Your task to perform on an android device: toggle translation in the chrome app Image 0: 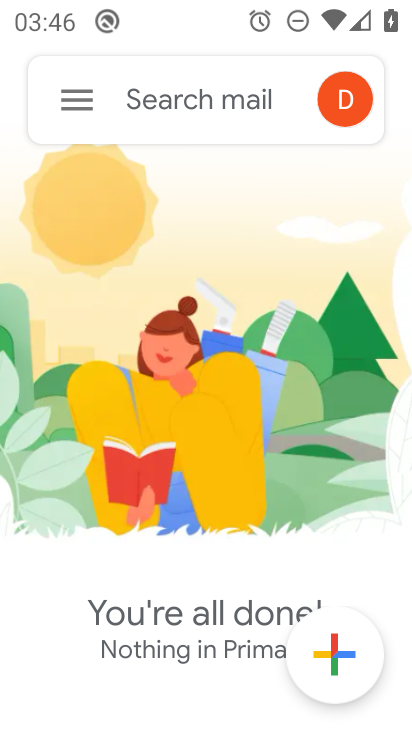
Step 0: press home button
Your task to perform on an android device: toggle translation in the chrome app Image 1: 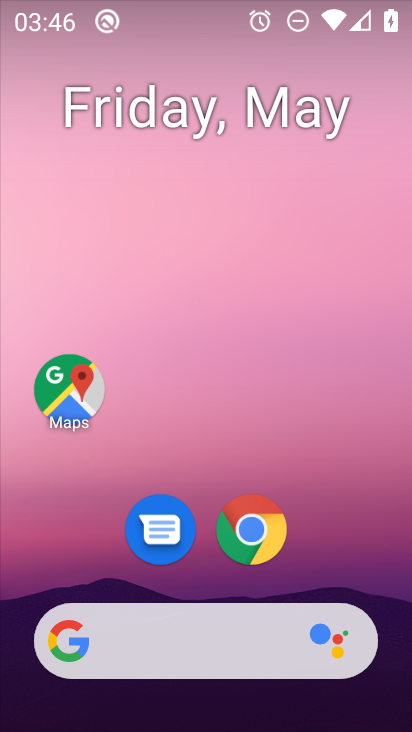
Step 1: drag from (396, 661) to (384, 268)
Your task to perform on an android device: toggle translation in the chrome app Image 2: 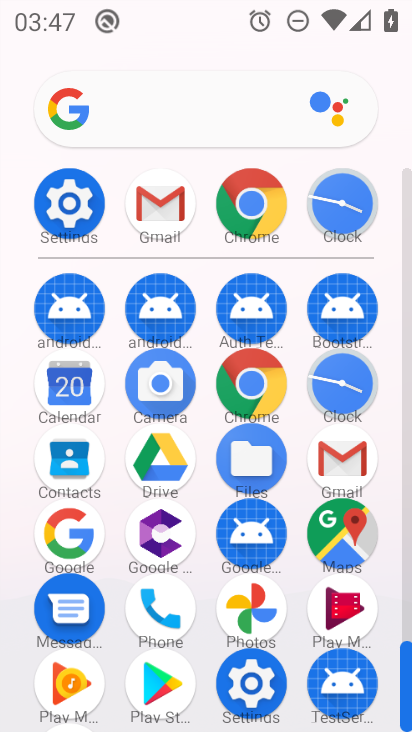
Step 2: click (254, 198)
Your task to perform on an android device: toggle translation in the chrome app Image 3: 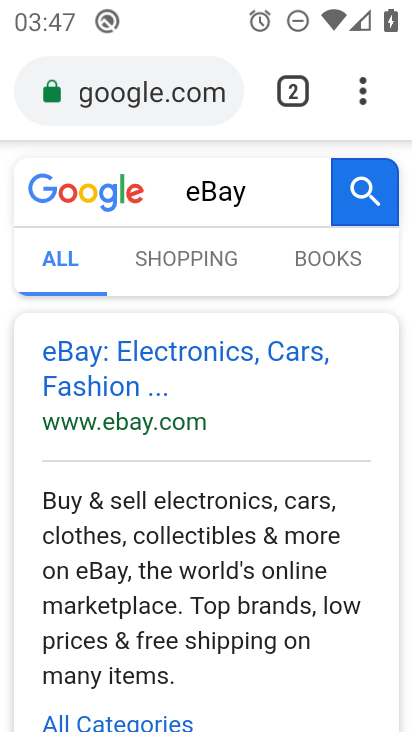
Step 3: click (364, 87)
Your task to perform on an android device: toggle translation in the chrome app Image 4: 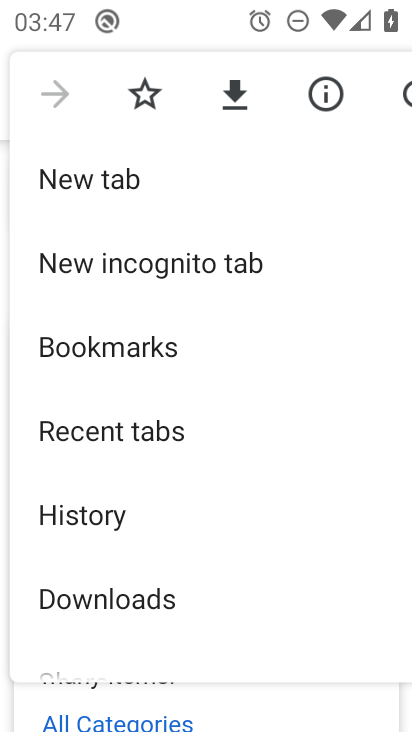
Step 4: drag from (278, 625) to (306, 367)
Your task to perform on an android device: toggle translation in the chrome app Image 5: 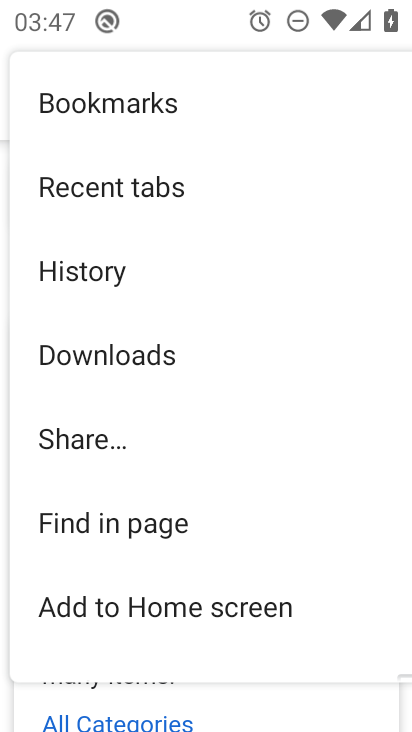
Step 5: drag from (306, 527) to (304, 367)
Your task to perform on an android device: toggle translation in the chrome app Image 6: 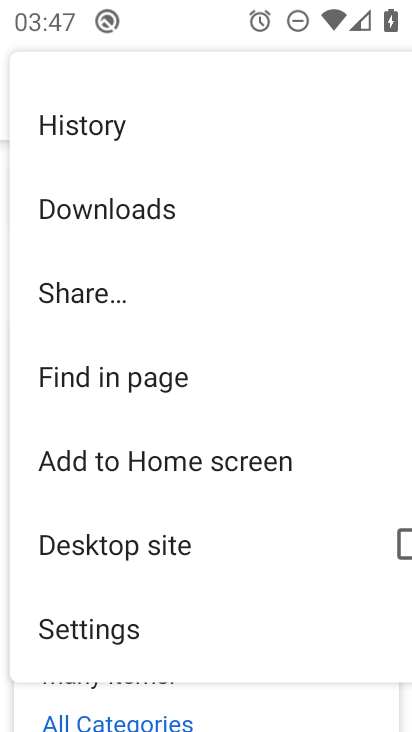
Step 6: click (62, 631)
Your task to perform on an android device: toggle translation in the chrome app Image 7: 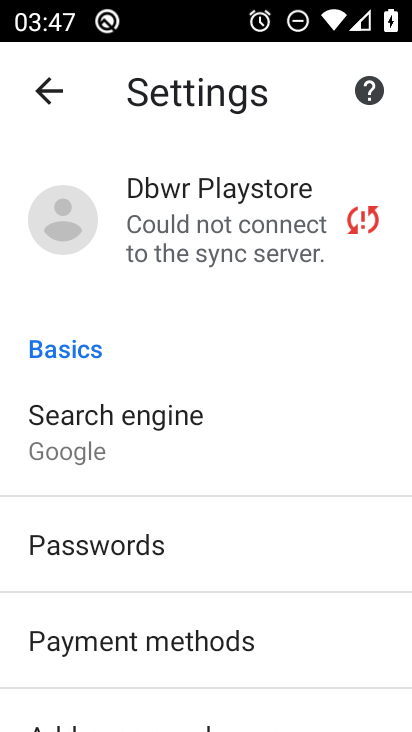
Step 7: drag from (305, 698) to (276, 356)
Your task to perform on an android device: toggle translation in the chrome app Image 8: 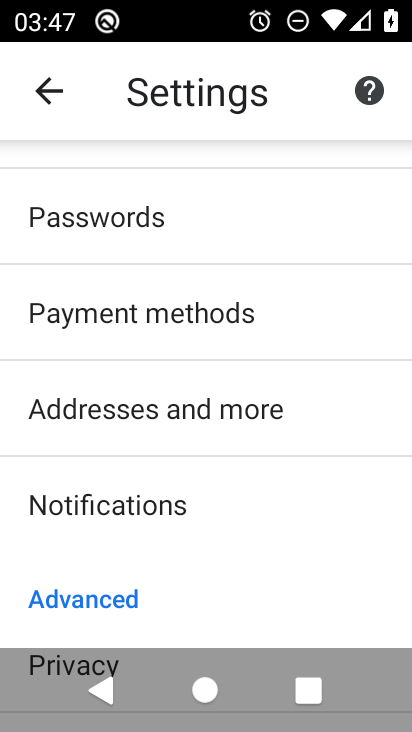
Step 8: drag from (266, 600) to (269, 351)
Your task to perform on an android device: toggle translation in the chrome app Image 9: 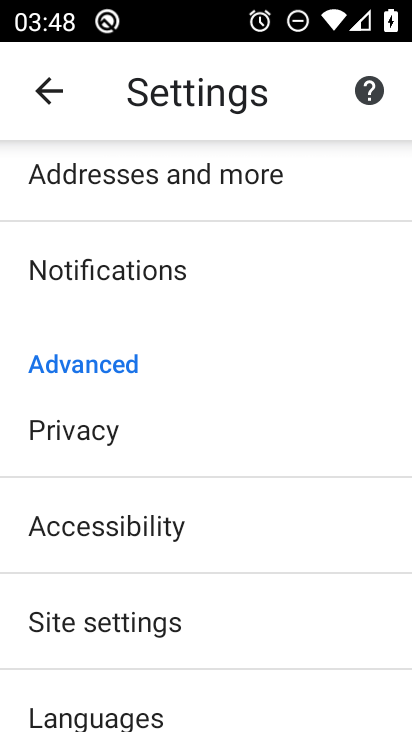
Step 9: click (97, 702)
Your task to perform on an android device: toggle translation in the chrome app Image 10: 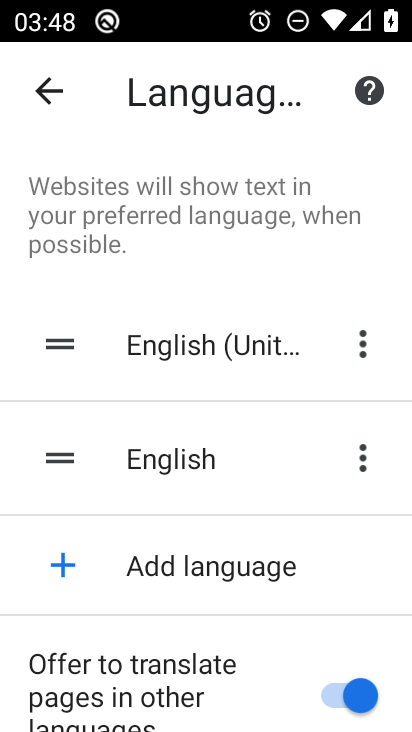
Step 10: click (325, 700)
Your task to perform on an android device: toggle translation in the chrome app Image 11: 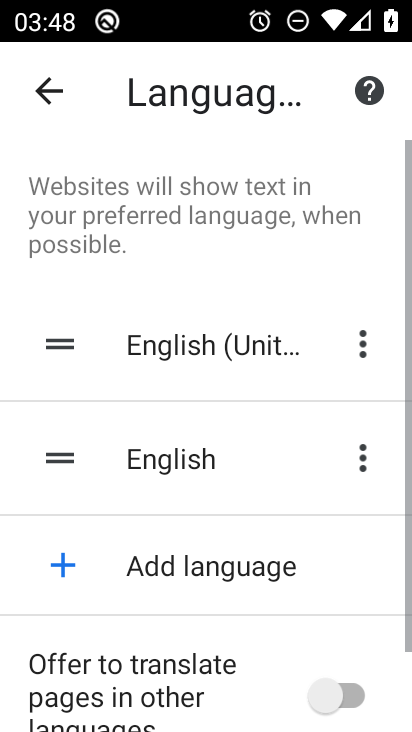
Step 11: task complete